Your task to perform on an android device: Go to Yahoo.com Image 0: 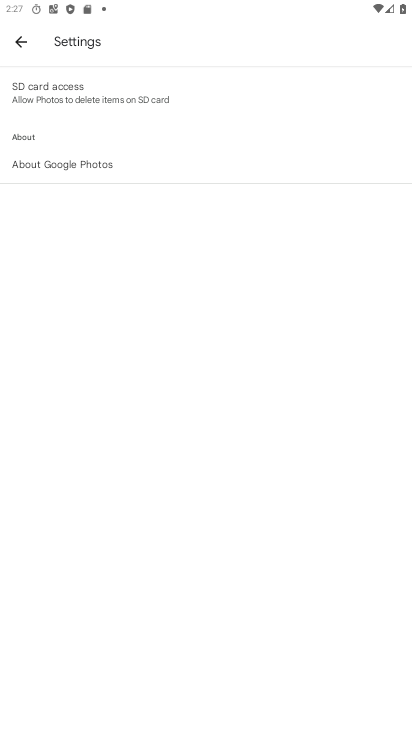
Step 0: press home button
Your task to perform on an android device: Go to Yahoo.com Image 1: 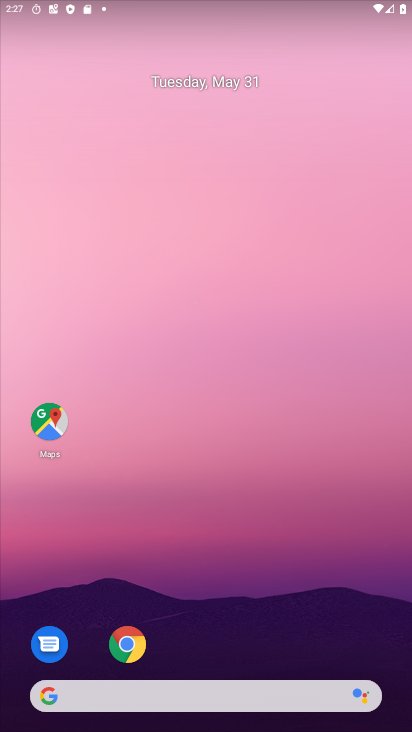
Step 1: click (140, 645)
Your task to perform on an android device: Go to Yahoo.com Image 2: 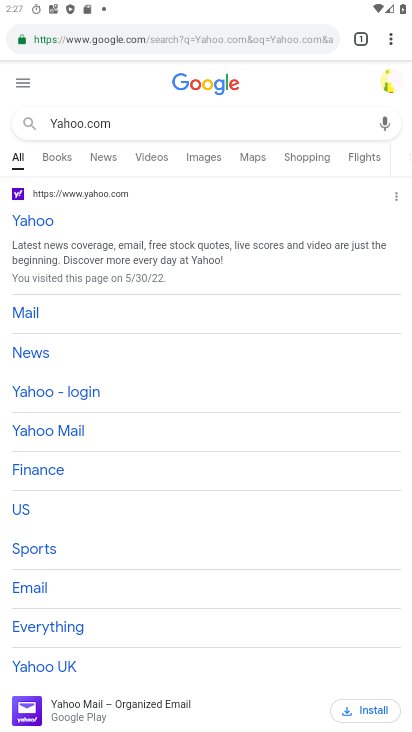
Step 2: click (329, 36)
Your task to perform on an android device: Go to Yahoo.com Image 3: 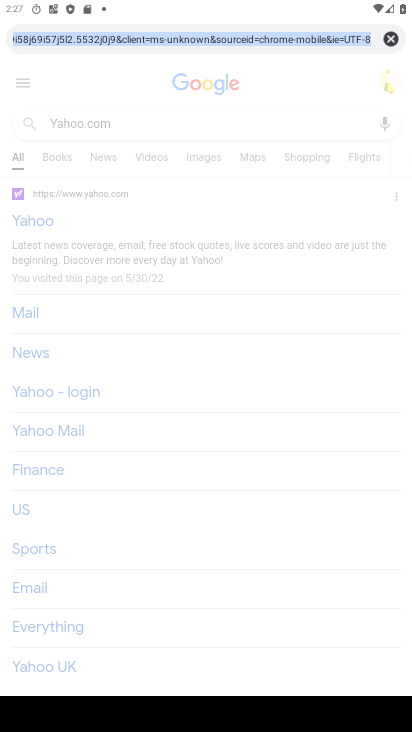
Step 3: click (388, 36)
Your task to perform on an android device: Go to Yahoo.com Image 4: 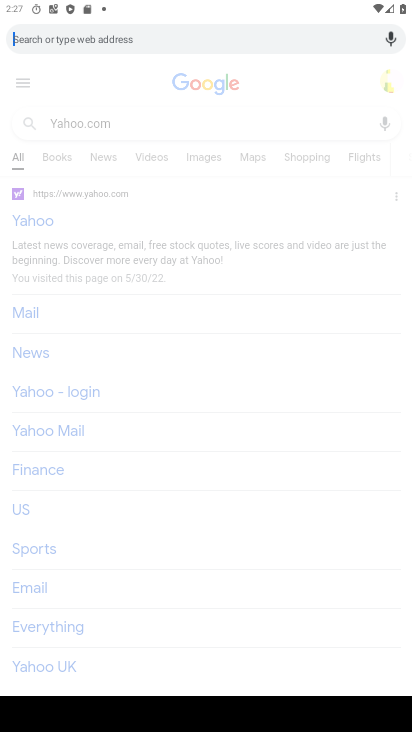
Step 4: type "Yahoo.com"
Your task to perform on an android device: Go to Yahoo.com Image 5: 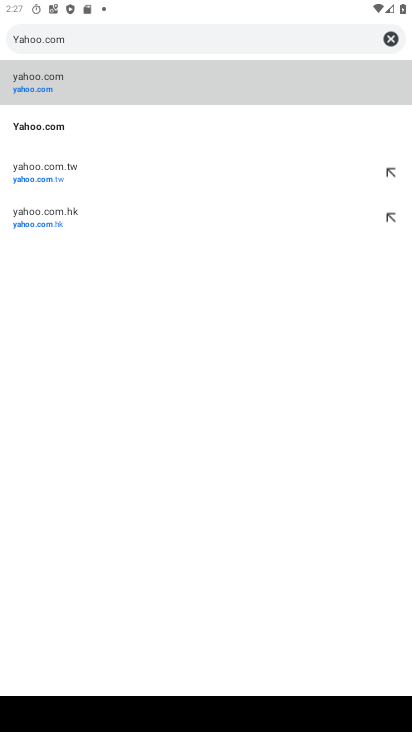
Step 5: click (35, 116)
Your task to perform on an android device: Go to Yahoo.com Image 6: 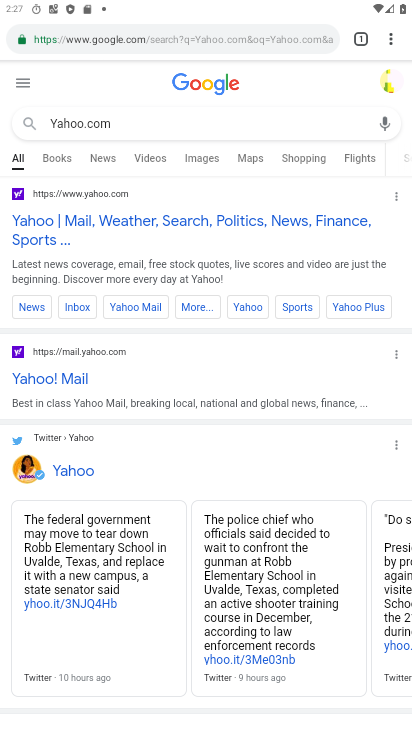
Step 6: task complete